Your task to perform on an android device: Open the map Image 0: 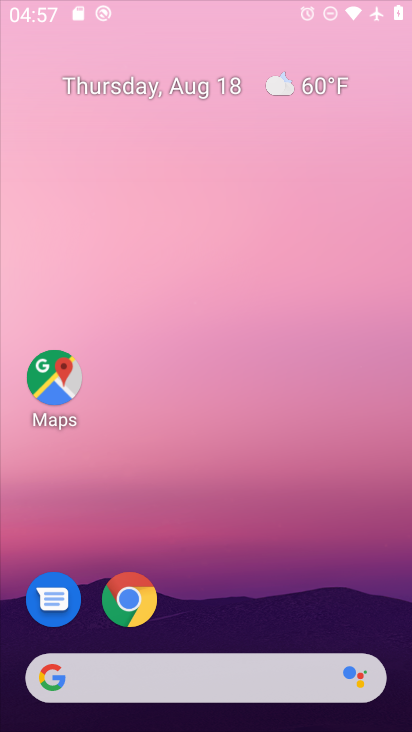
Step 0: press home button
Your task to perform on an android device: Open the map Image 1: 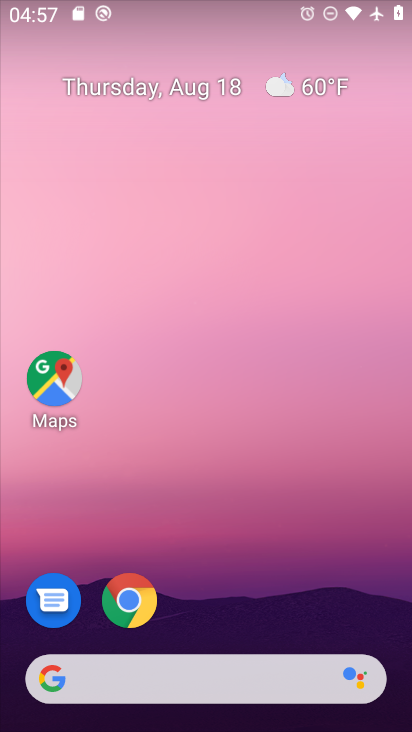
Step 1: click (58, 378)
Your task to perform on an android device: Open the map Image 2: 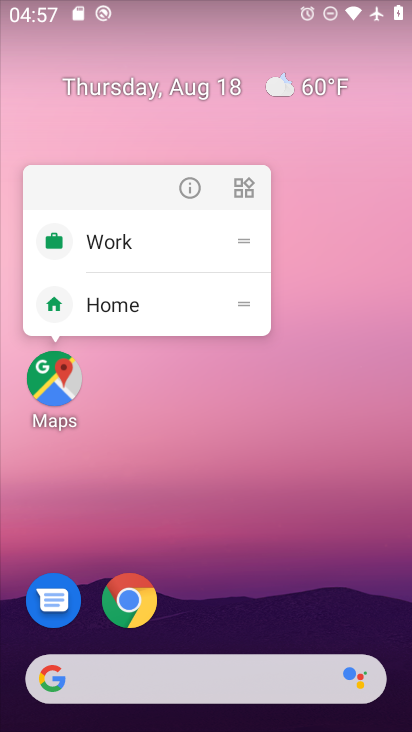
Step 2: click (69, 372)
Your task to perform on an android device: Open the map Image 3: 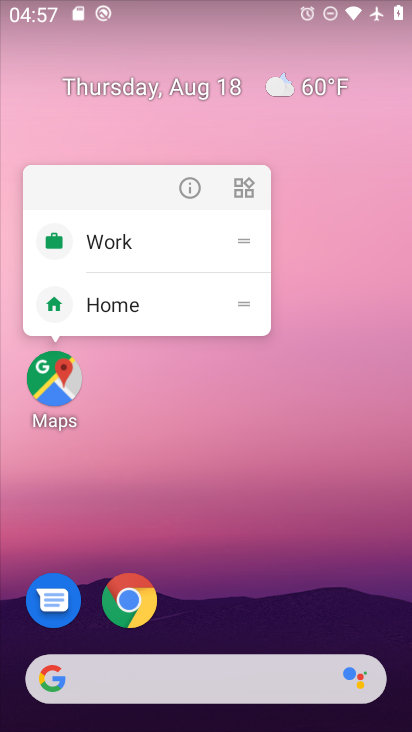
Step 3: click (52, 377)
Your task to perform on an android device: Open the map Image 4: 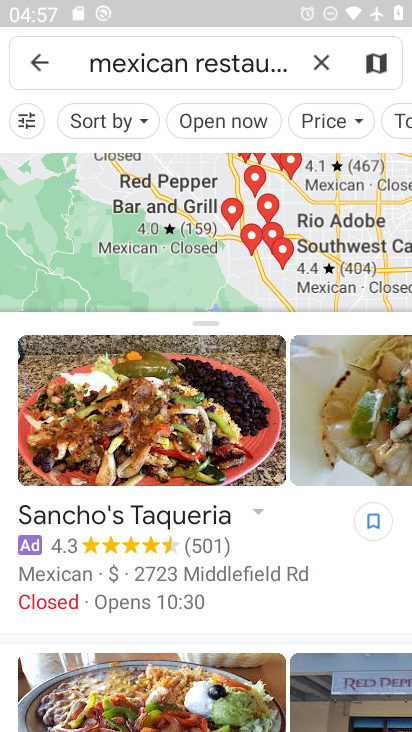
Step 4: task complete